Your task to perform on an android device: Go to wifi settings Image 0: 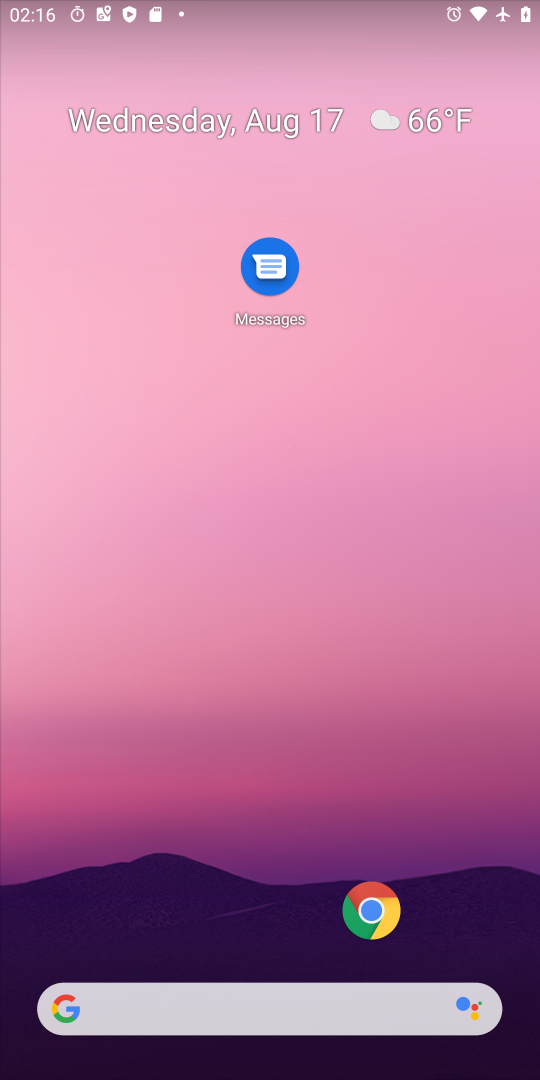
Step 0: drag from (469, 809) to (466, 168)
Your task to perform on an android device: Go to wifi settings Image 1: 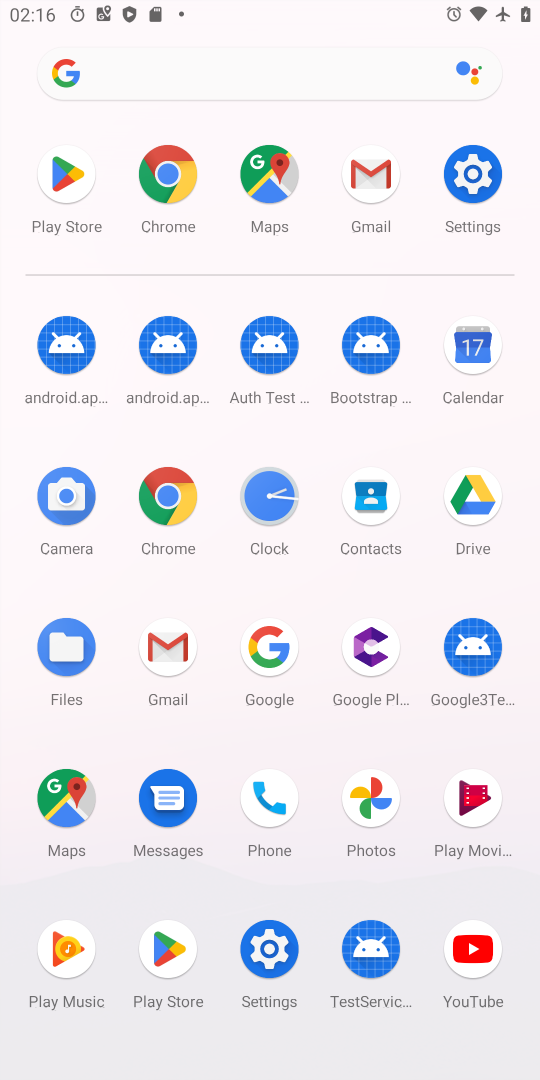
Step 1: click (262, 942)
Your task to perform on an android device: Go to wifi settings Image 2: 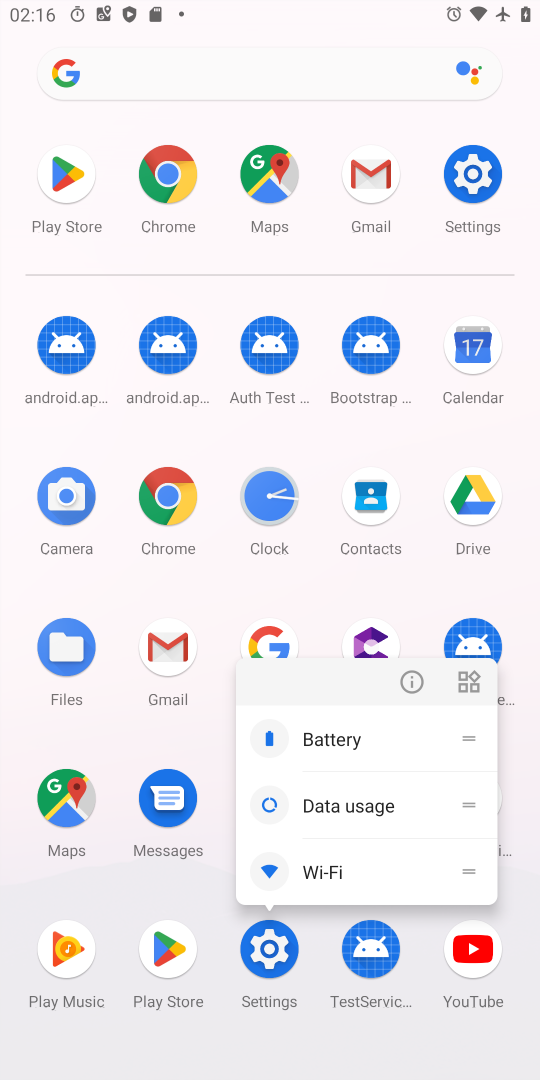
Step 2: click (262, 942)
Your task to perform on an android device: Go to wifi settings Image 3: 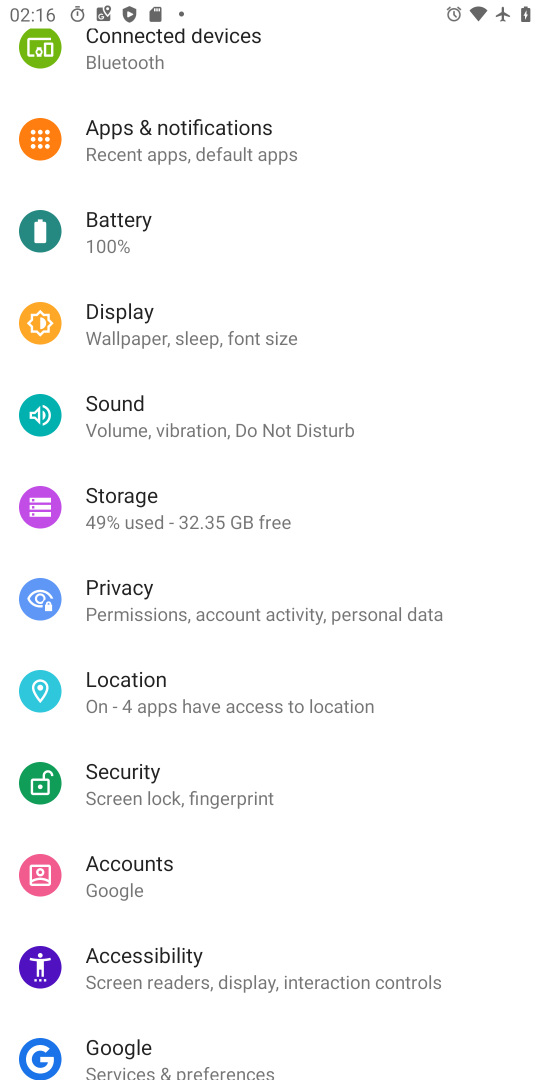
Step 3: drag from (271, 165) to (288, 958)
Your task to perform on an android device: Go to wifi settings Image 4: 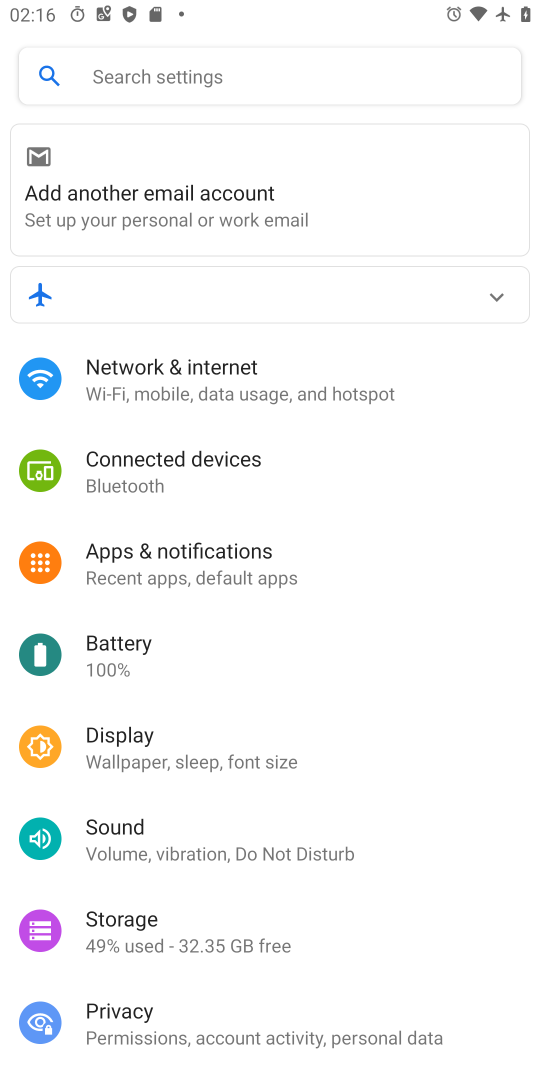
Step 4: click (262, 384)
Your task to perform on an android device: Go to wifi settings Image 5: 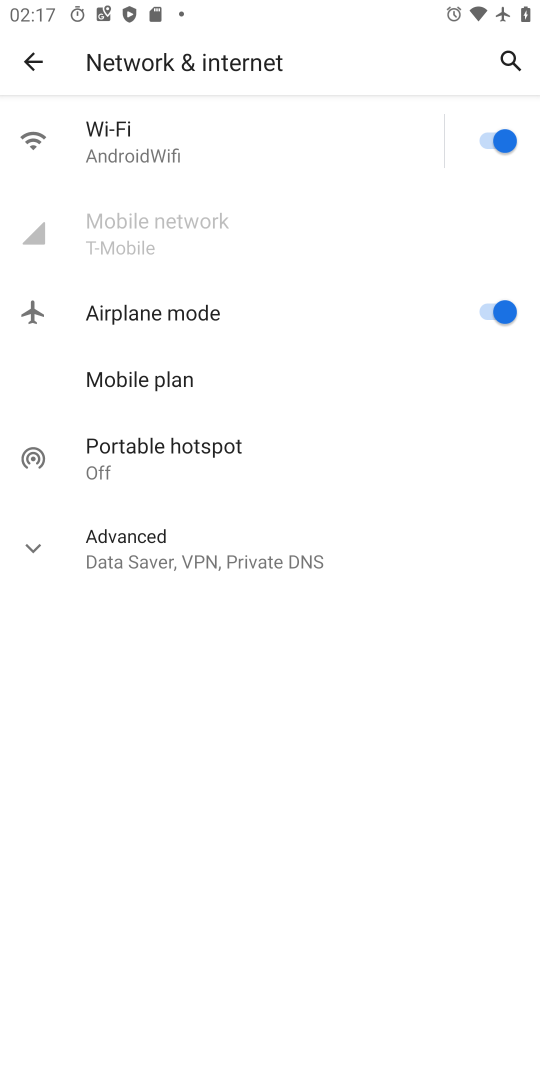
Step 5: click (281, 152)
Your task to perform on an android device: Go to wifi settings Image 6: 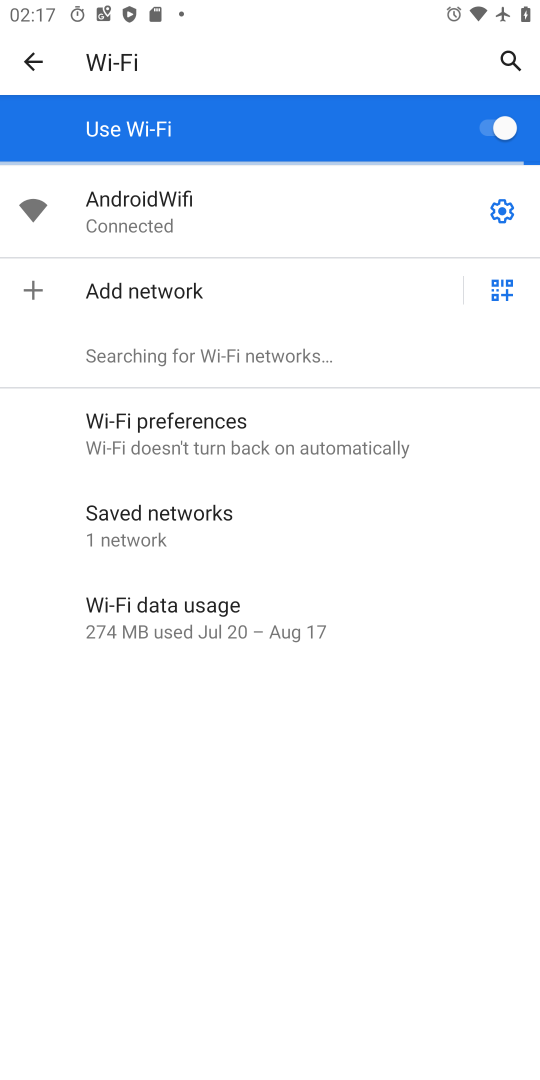
Step 6: click (495, 211)
Your task to perform on an android device: Go to wifi settings Image 7: 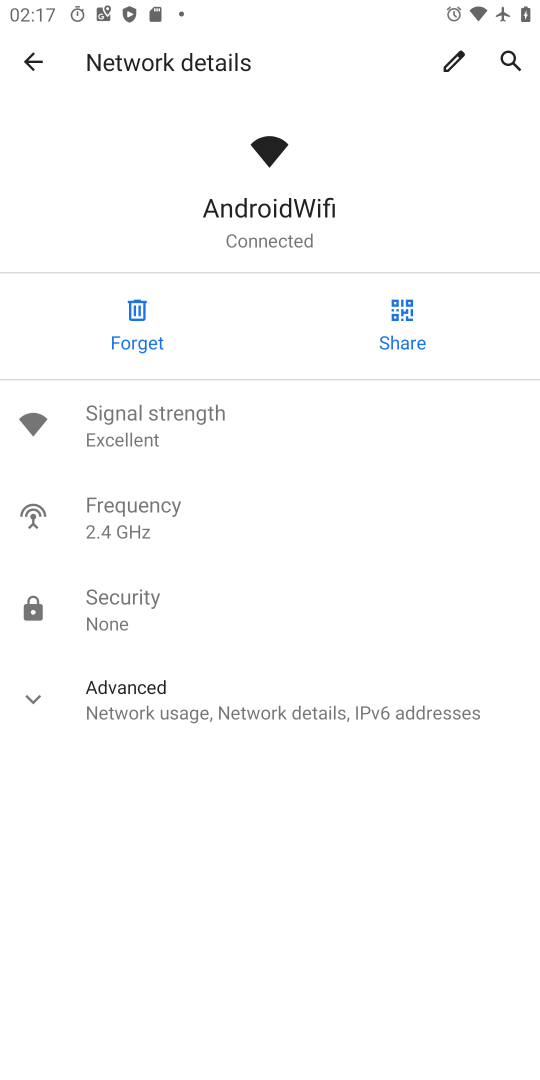
Step 7: task complete